Your task to perform on an android device: Open the calendar app, open the side menu, and click the "Day" option Image 0: 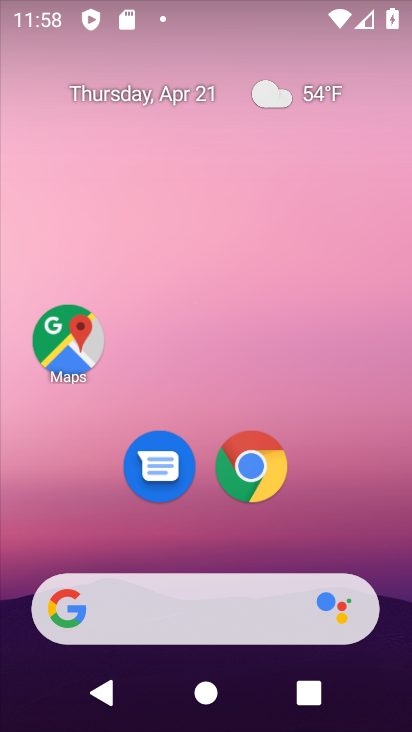
Step 0: press home button
Your task to perform on an android device: Open the calendar app, open the side menu, and click the "Day" option Image 1: 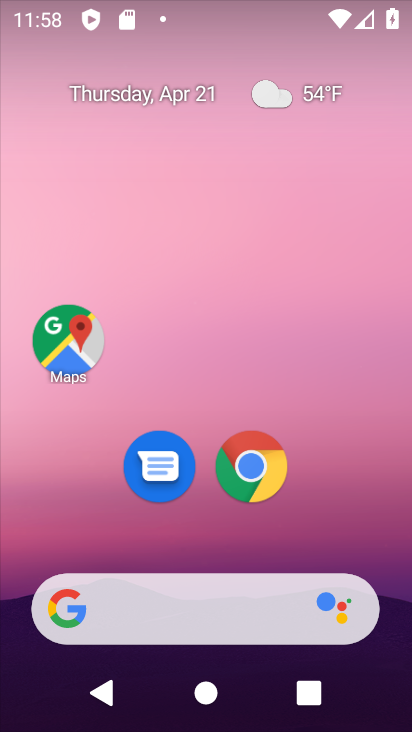
Step 1: drag from (355, 491) to (328, 106)
Your task to perform on an android device: Open the calendar app, open the side menu, and click the "Day" option Image 2: 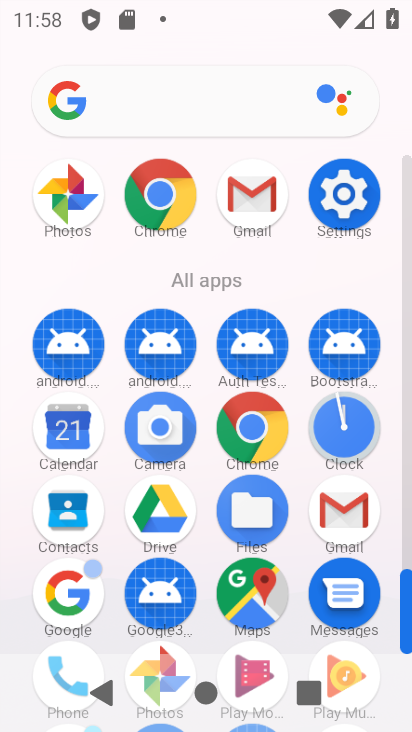
Step 2: click (74, 445)
Your task to perform on an android device: Open the calendar app, open the side menu, and click the "Day" option Image 3: 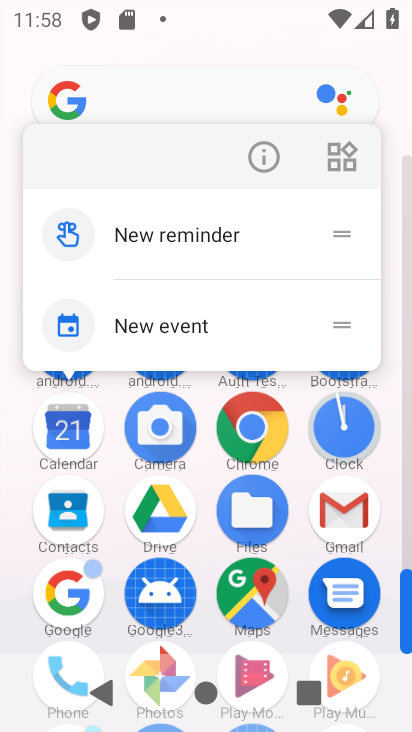
Step 3: click (77, 443)
Your task to perform on an android device: Open the calendar app, open the side menu, and click the "Day" option Image 4: 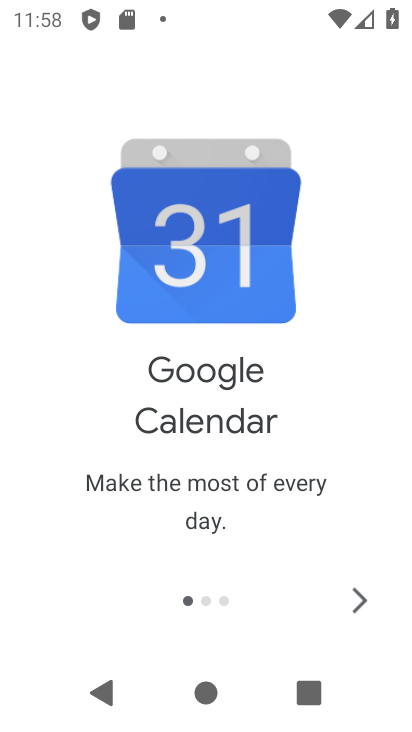
Step 4: click (339, 595)
Your task to perform on an android device: Open the calendar app, open the side menu, and click the "Day" option Image 5: 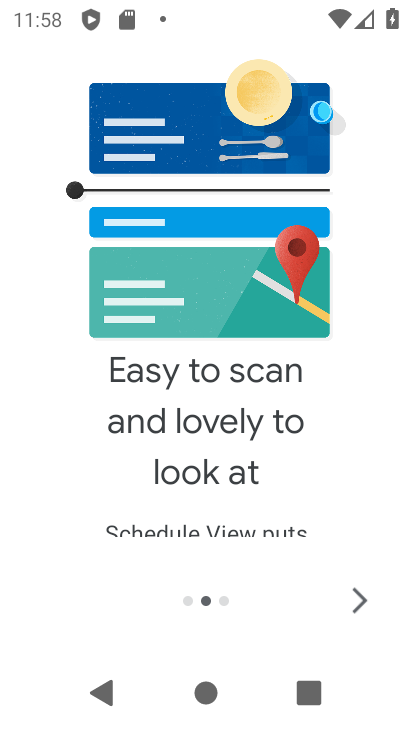
Step 5: click (350, 602)
Your task to perform on an android device: Open the calendar app, open the side menu, and click the "Day" option Image 6: 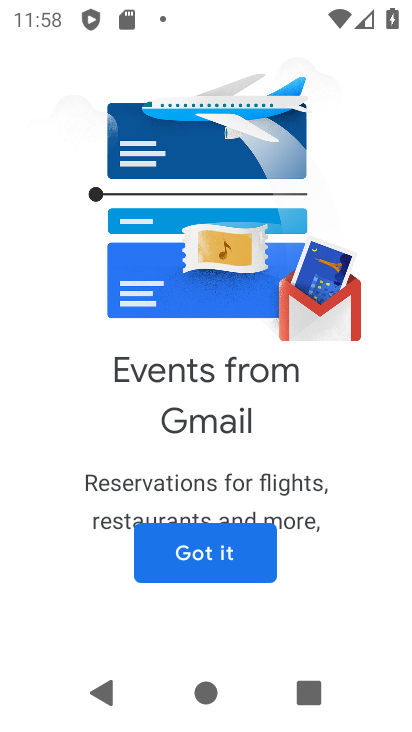
Step 6: click (227, 548)
Your task to perform on an android device: Open the calendar app, open the side menu, and click the "Day" option Image 7: 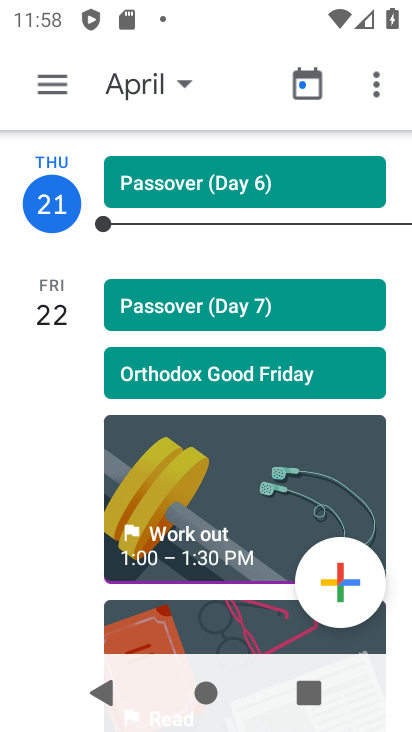
Step 7: click (47, 86)
Your task to perform on an android device: Open the calendar app, open the side menu, and click the "Day" option Image 8: 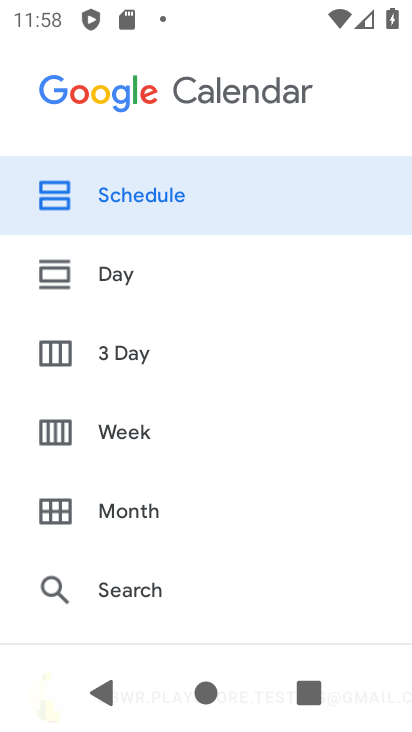
Step 8: click (91, 275)
Your task to perform on an android device: Open the calendar app, open the side menu, and click the "Day" option Image 9: 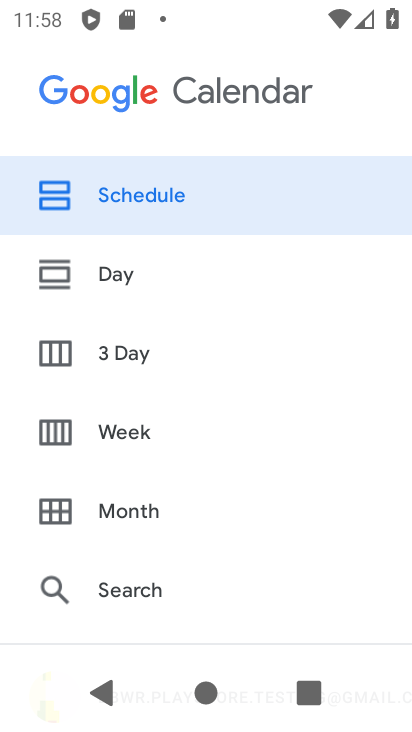
Step 9: click (117, 274)
Your task to perform on an android device: Open the calendar app, open the side menu, and click the "Day" option Image 10: 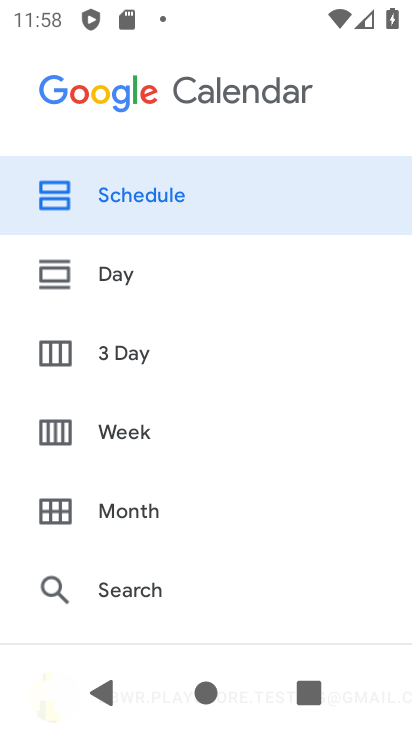
Step 10: click (126, 272)
Your task to perform on an android device: Open the calendar app, open the side menu, and click the "Day" option Image 11: 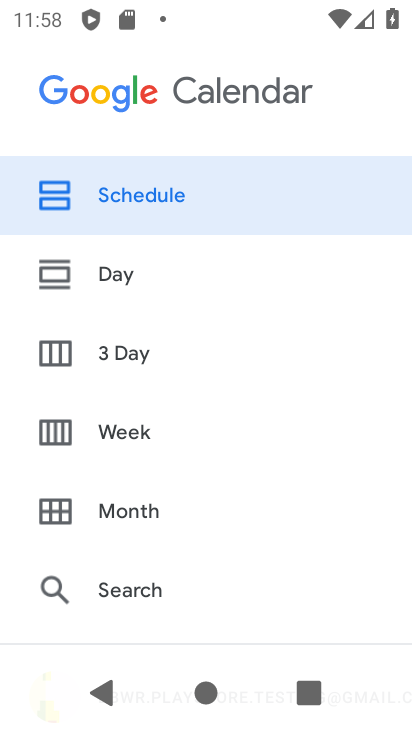
Step 11: click (63, 275)
Your task to perform on an android device: Open the calendar app, open the side menu, and click the "Day" option Image 12: 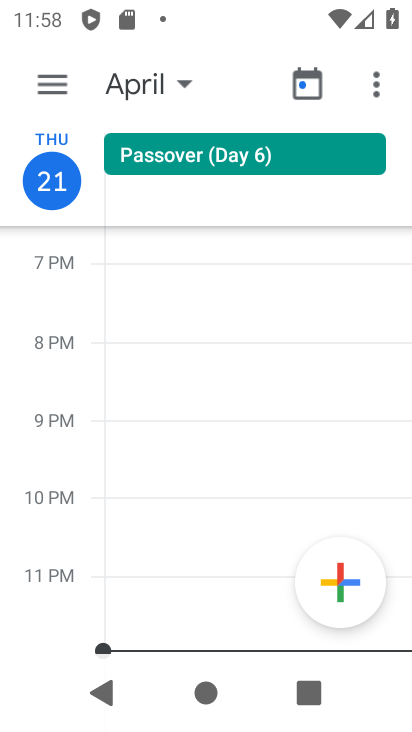
Step 12: click (48, 84)
Your task to perform on an android device: Open the calendar app, open the side menu, and click the "Day" option Image 13: 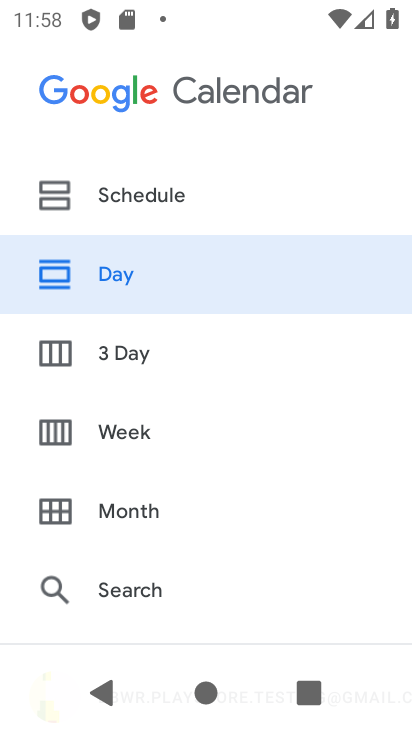
Step 13: task complete